Your task to perform on an android device: Go to wifi settings Image 0: 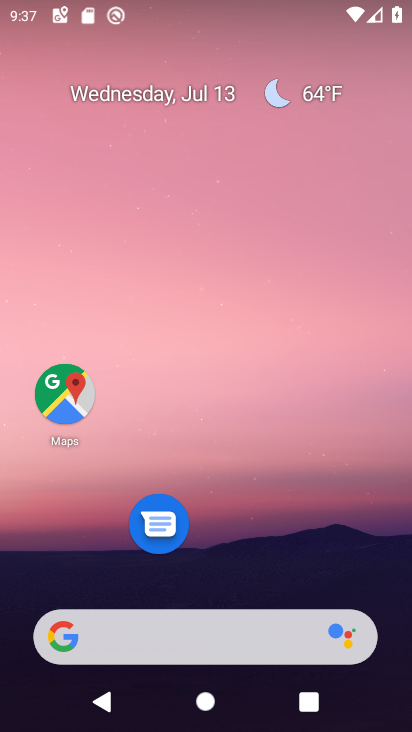
Step 0: drag from (232, 596) to (217, 57)
Your task to perform on an android device: Go to wifi settings Image 1: 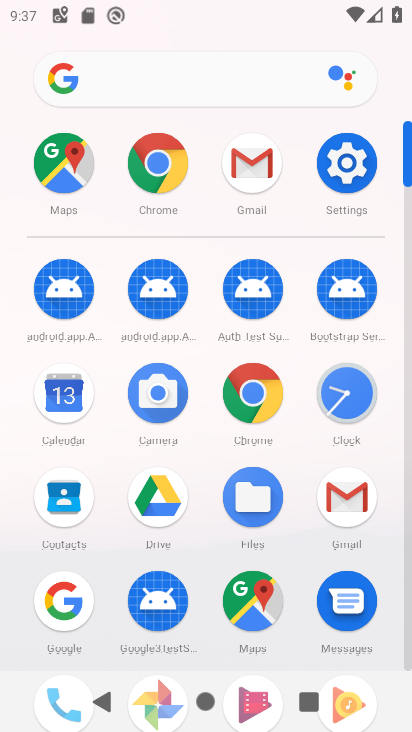
Step 1: click (332, 165)
Your task to perform on an android device: Go to wifi settings Image 2: 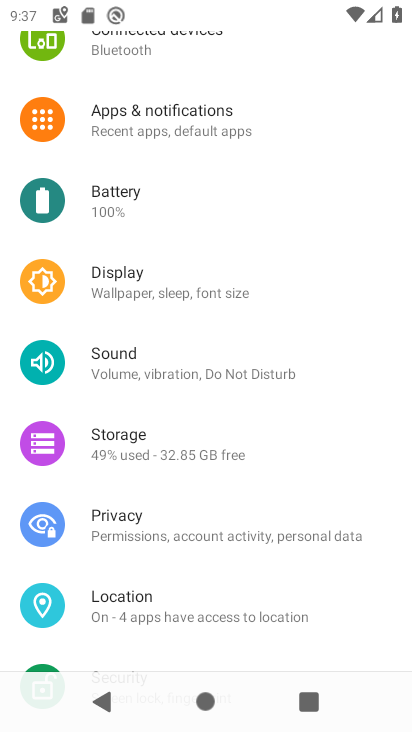
Step 2: drag from (132, 230) to (139, 546)
Your task to perform on an android device: Go to wifi settings Image 3: 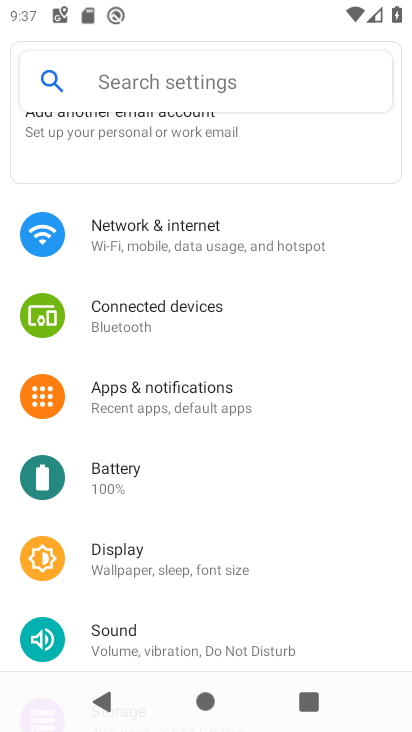
Step 3: click (160, 238)
Your task to perform on an android device: Go to wifi settings Image 4: 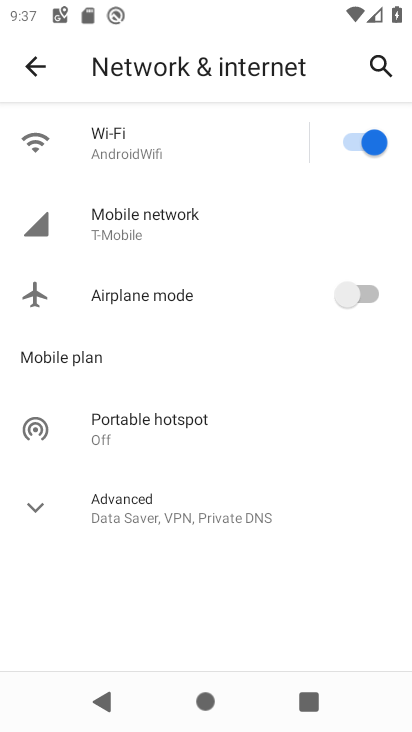
Step 4: click (135, 154)
Your task to perform on an android device: Go to wifi settings Image 5: 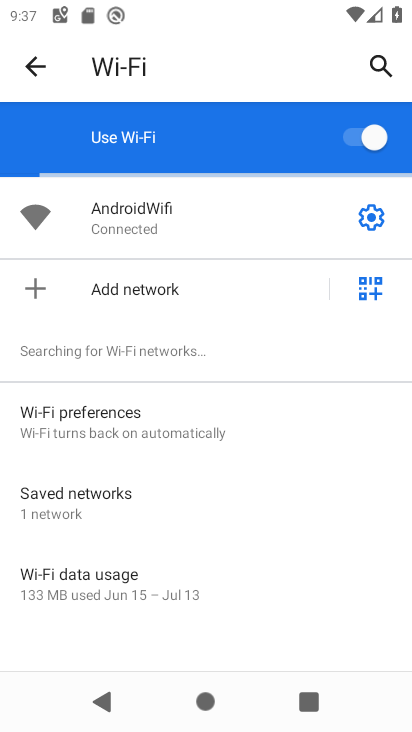
Step 5: task complete